Your task to perform on an android device: all mails in gmail Image 0: 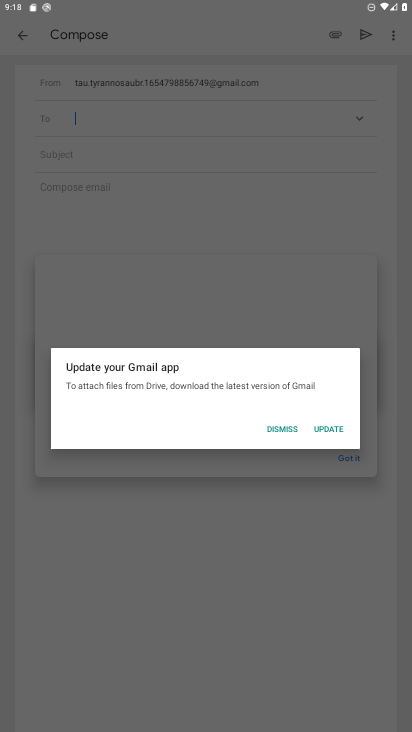
Step 0: press home button
Your task to perform on an android device: all mails in gmail Image 1: 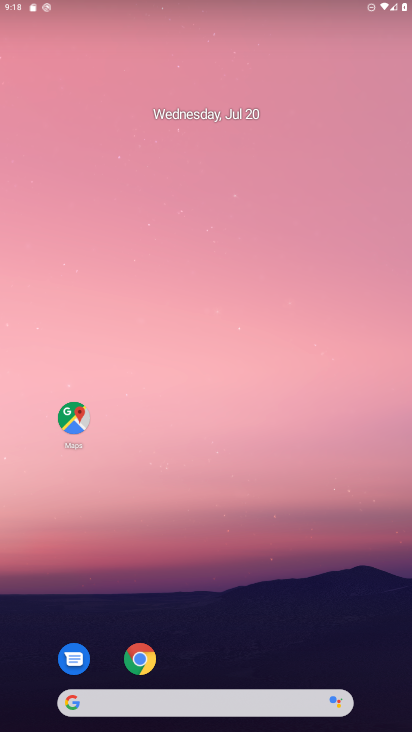
Step 1: drag from (241, 597) to (185, 12)
Your task to perform on an android device: all mails in gmail Image 2: 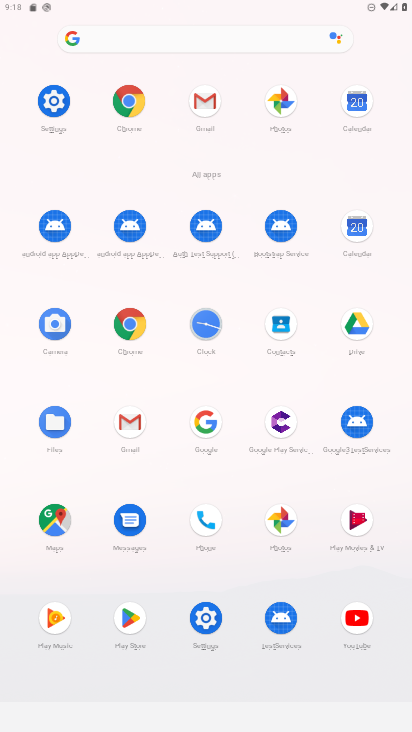
Step 2: click (207, 108)
Your task to perform on an android device: all mails in gmail Image 3: 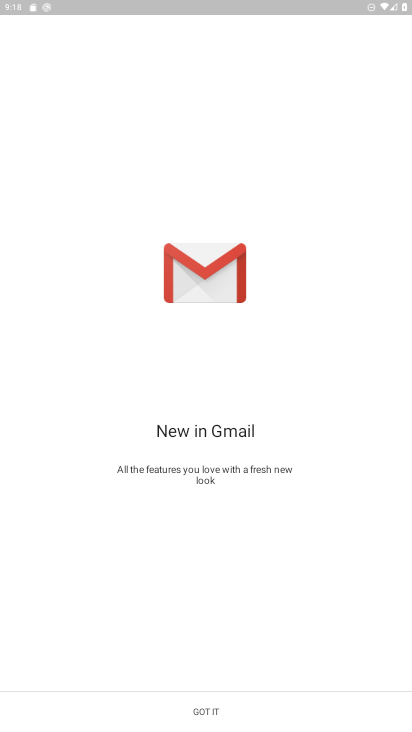
Step 3: click (217, 710)
Your task to perform on an android device: all mails in gmail Image 4: 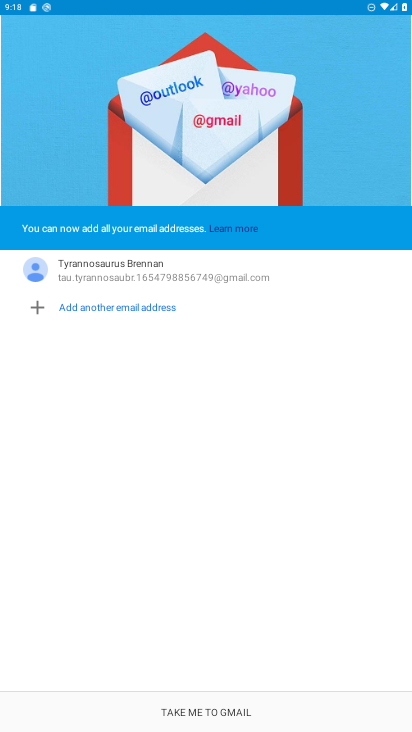
Step 4: click (217, 710)
Your task to perform on an android device: all mails in gmail Image 5: 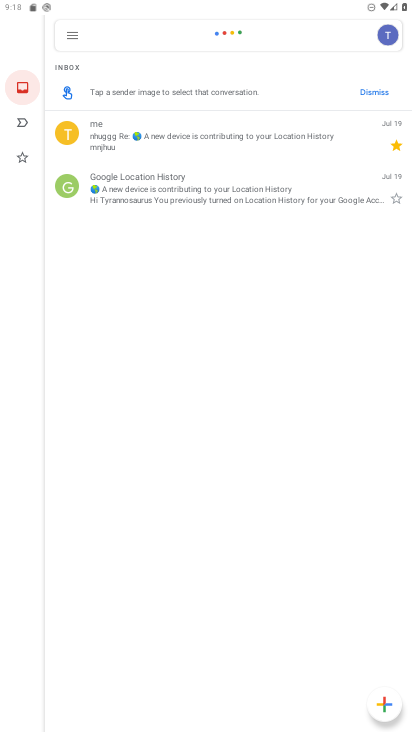
Step 5: click (65, 40)
Your task to perform on an android device: all mails in gmail Image 6: 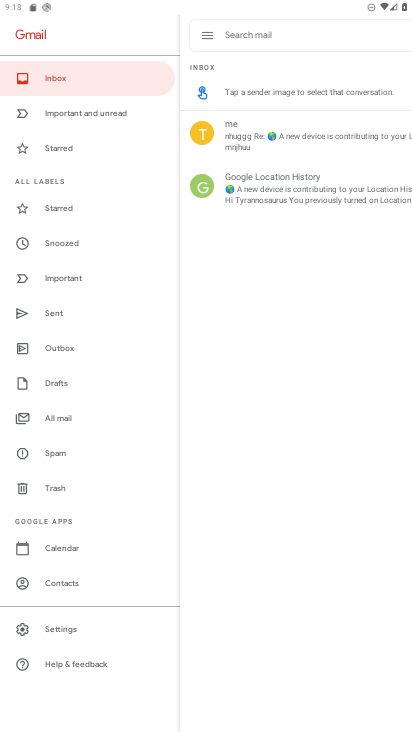
Step 6: click (50, 411)
Your task to perform on an android device: all mails in gmail Image 7: 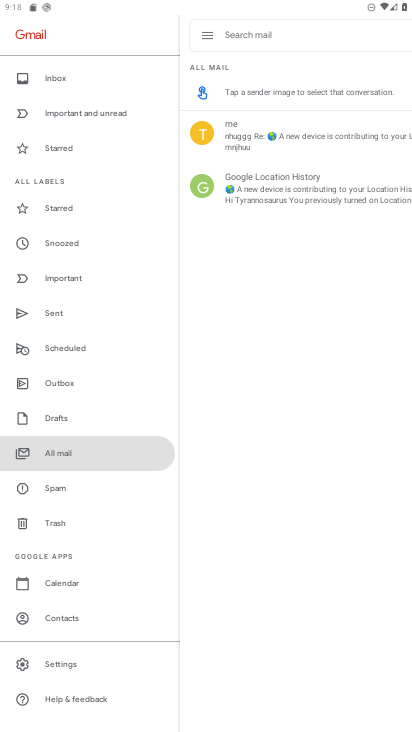
Step 7: task complete